Your task to perform on an android device: Toggle the flashlight Image 0: 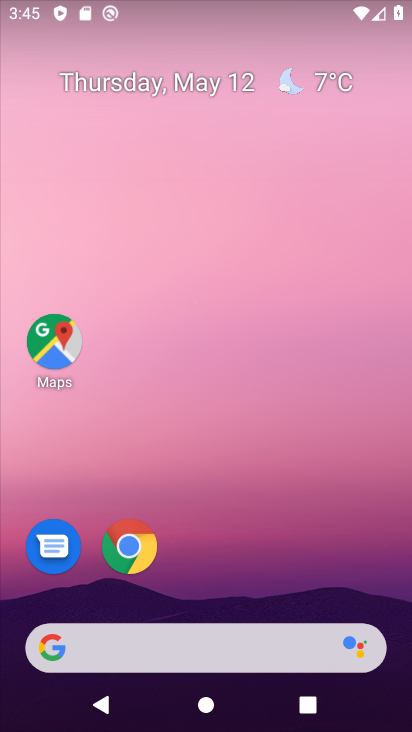
Step 0: drag from (319, 6) to (299, 648)
Your task to perform on an android device: Toggle the flashlight Image 1: 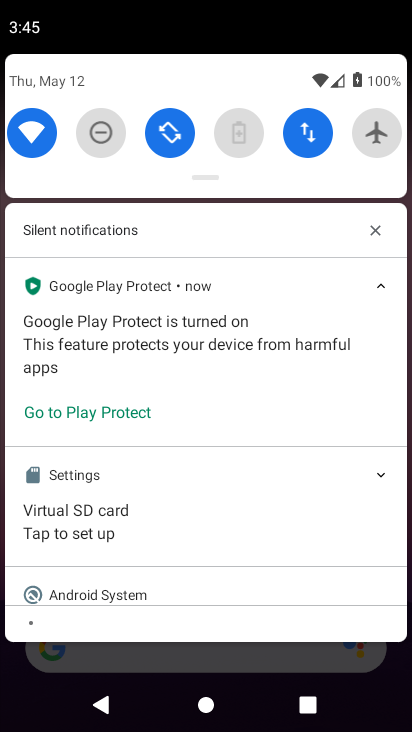
Step 1: task complete